Your task to perform on an android device: visit the assistant section in the google photos Image 0: 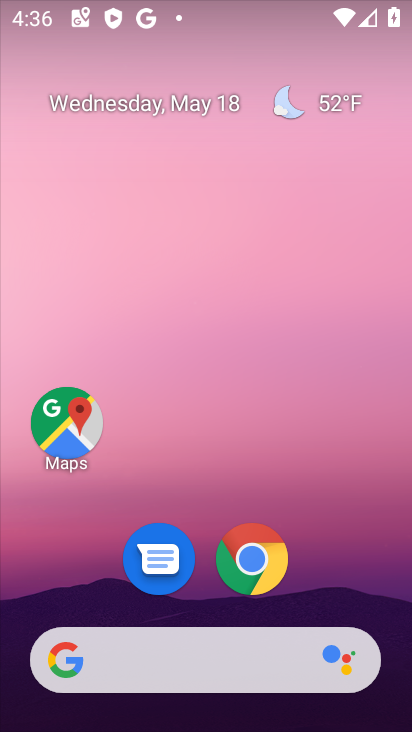
Step 0: drag from (180, 582) to (331, 11)
Your task to perform on an android device: visit the assistant section in the google photos Image 1: 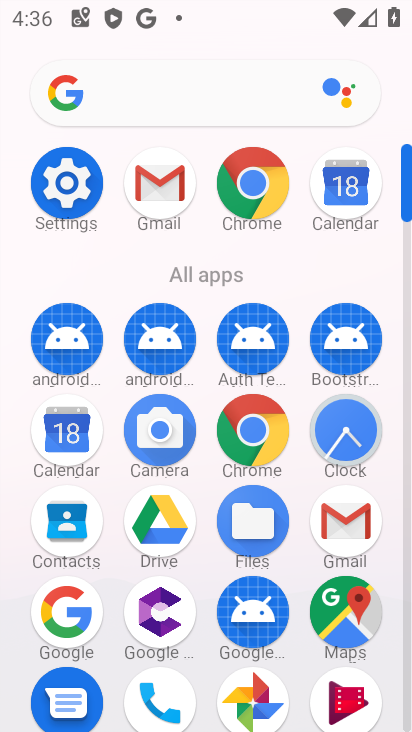
Step 1: click (251, 689)
Your task to perform on an android device: visit the assistant section in the google photos Image 2: 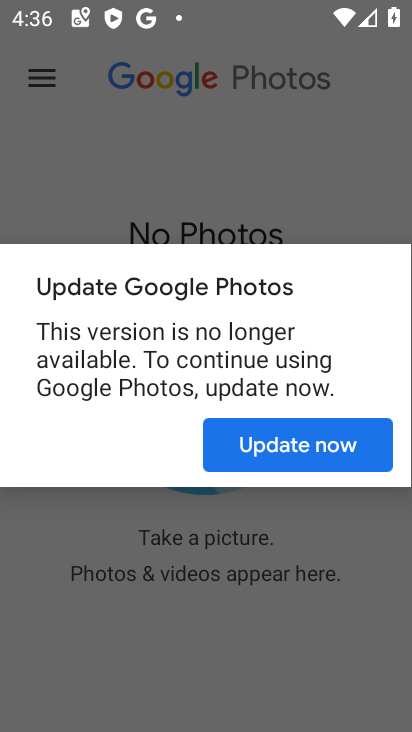
Step 2: click (288, 448)
Your task to perform on an android device: visit the assistant section in the google photos Image 3: 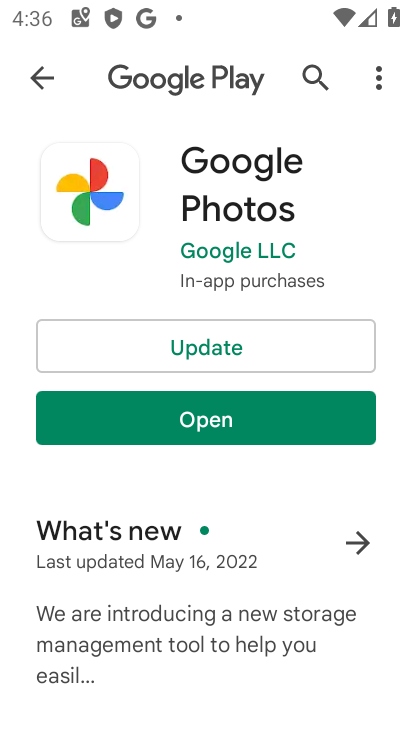
Step 3: click (186, 429)
Your task to perform on an android device: visit the assistant section in the google photos Image 4: 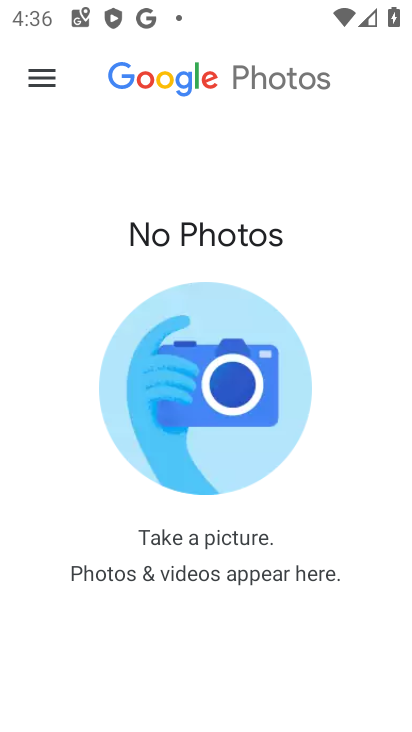
Step 4: task complete